Your task to perform on an android device: Open the calendar and show me this week's events? Image 0: 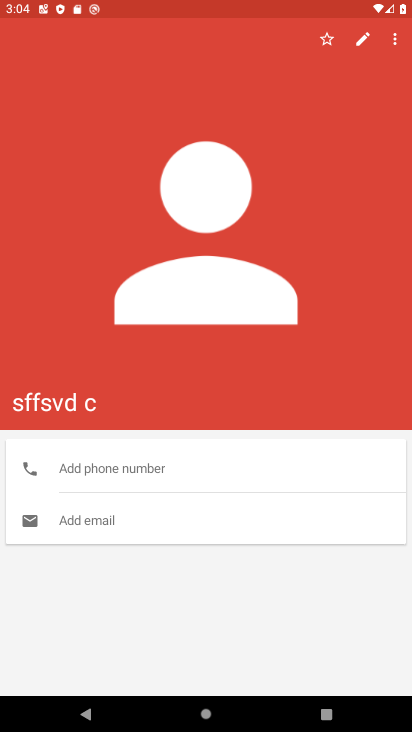
Step 0: press home button
Your task to perform on an android device: Open the calendar and show me this week's events? Image 1: 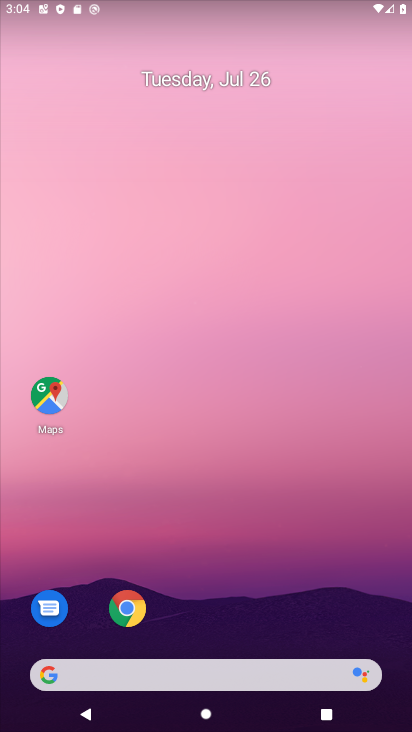
Step 1: drag from (263, 612) to (228, 8)
Your task to perform on an android device: Open the calendar and show me this week's events? Image 2: 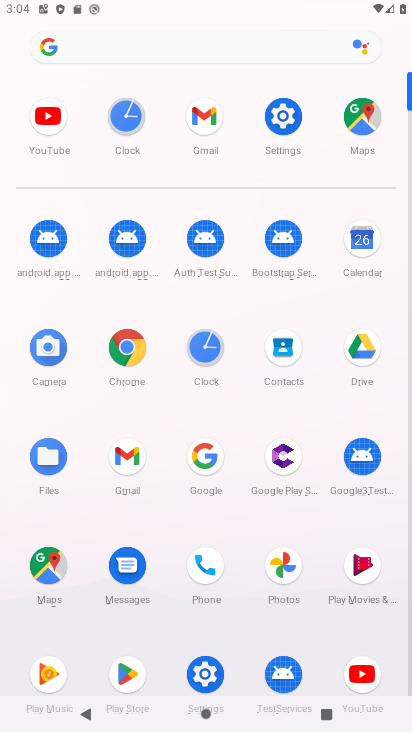
Step 2: click (365, 242)
Your task to perform on an android device: Open the calendar and show me this week's events? Image 3: 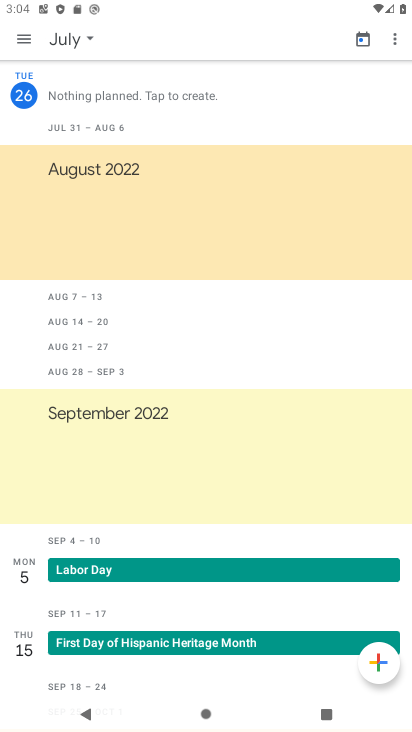
Step 3: task complete